Your task to perform on an android device: Go to network settings Image 0: 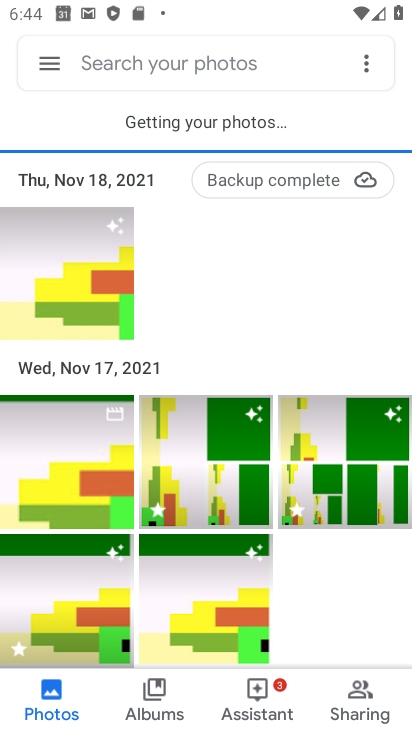
Step 0: press home button
Your task to perform on an android device: Go to network settings Image 1: 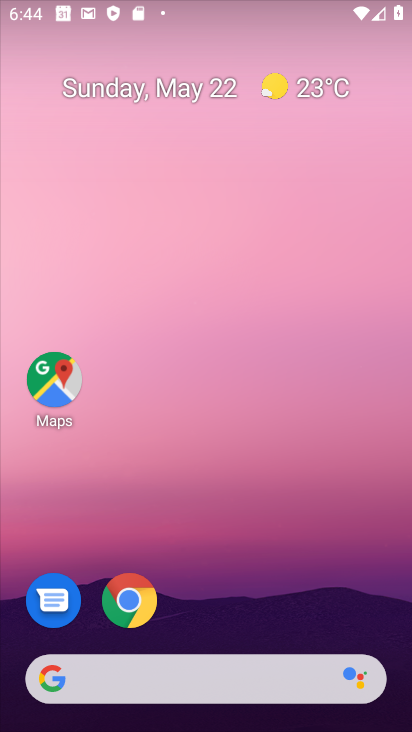
Step 1: drag from (395, 629) to (229, 4)
Your task to perform on an android device: Go to network settings Image 2: 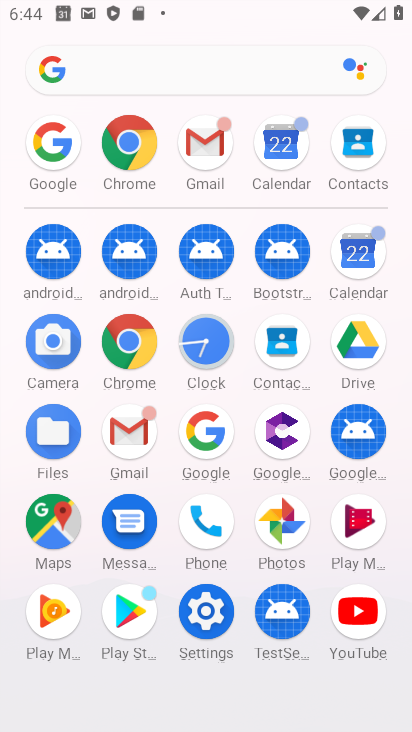
Step 2: click (196, 608)
Your task to perform on an android device: Go to network settings Image 3: 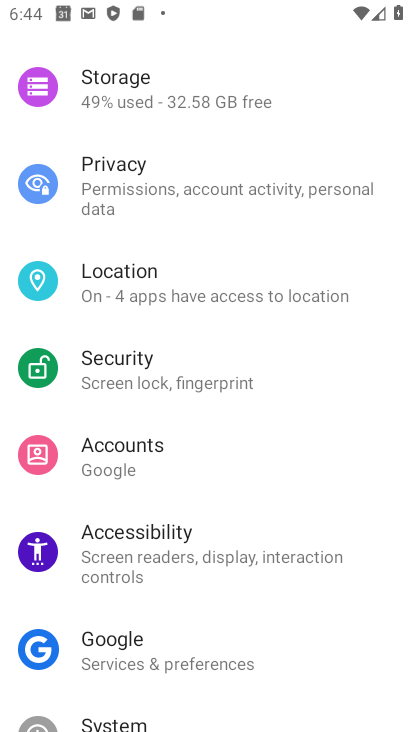
Step 3: drag from (91, 111) to (136, 522)
Your task to perform on an android device: Go to network settings Image 4: 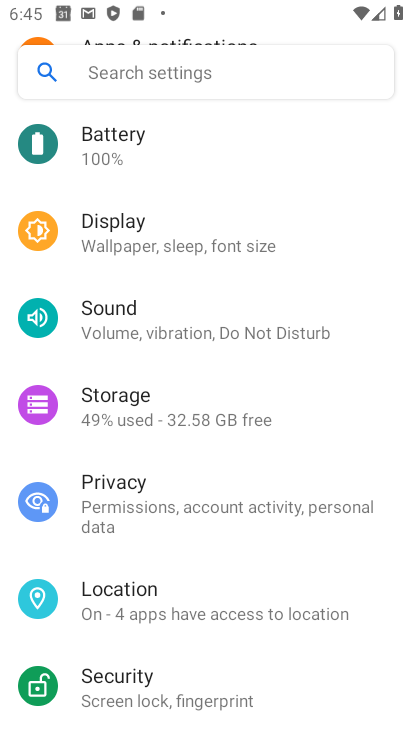
Step 4: drag from (175, 200) to (176, 693)
Your task to perform on an android device: Go to network settings Image 5: 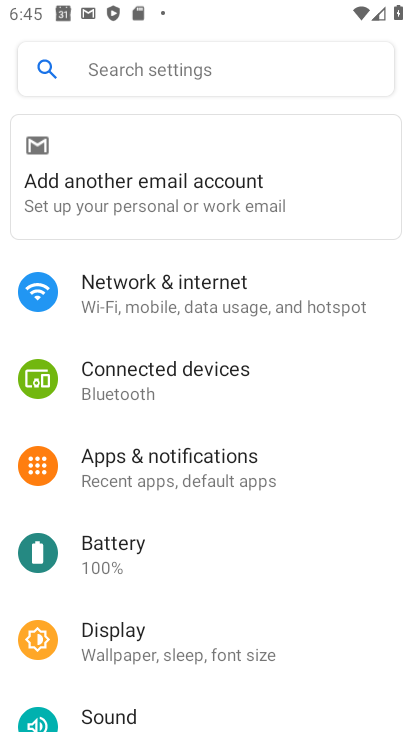
Step 5: click (116, 297)
Your task to perform on an android device: Go to network settings Image 6: 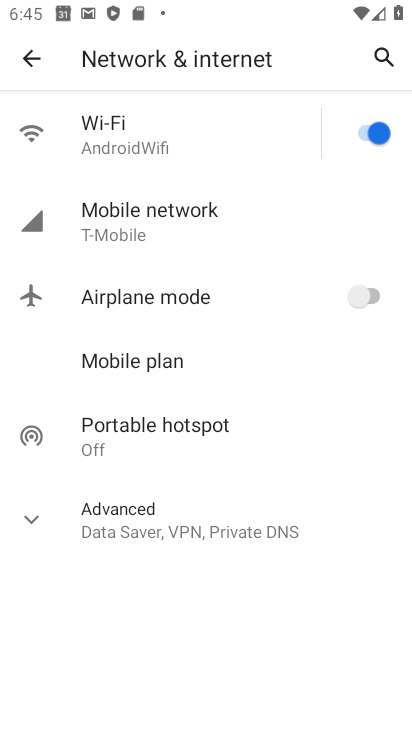
Step 6: task complete